Your task to perform on an android device: open app "AliExpress" Image 0: 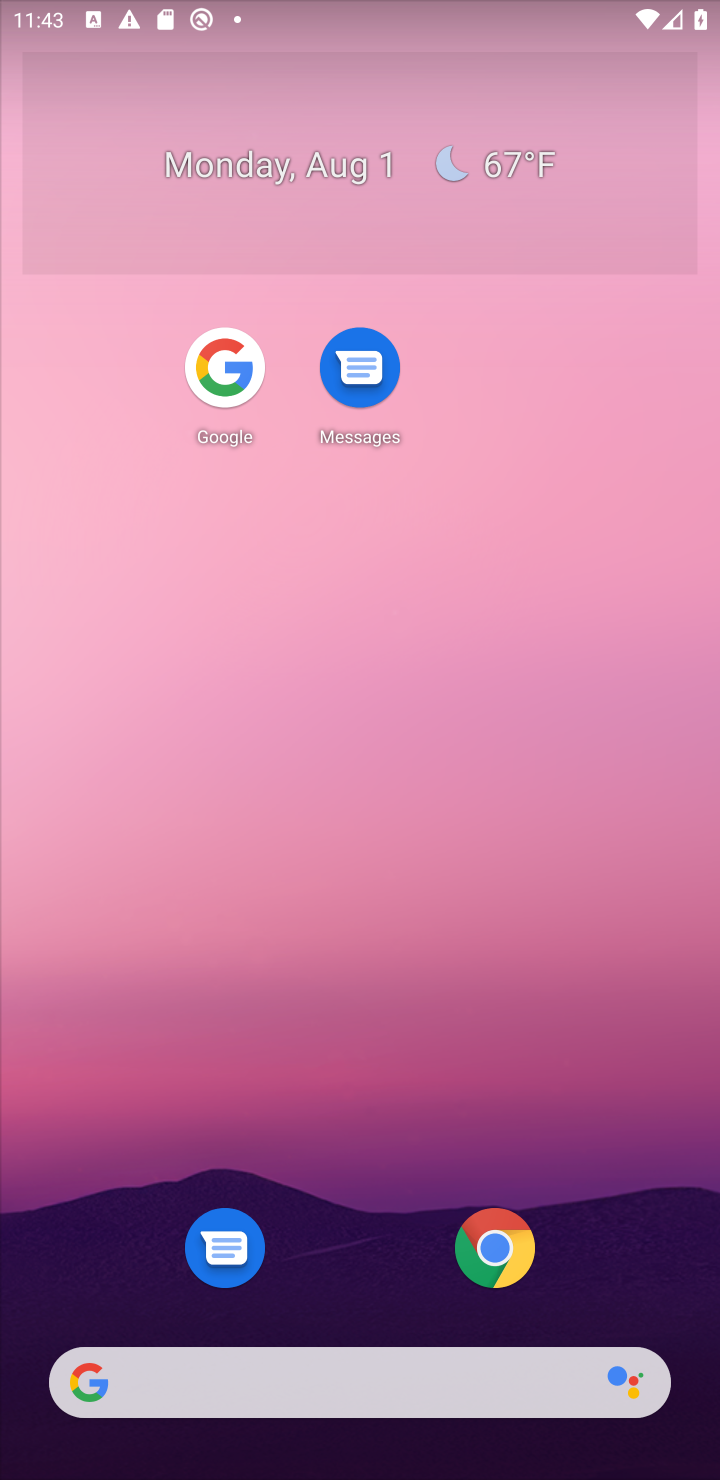
Step 0: drag from (388, 967) to (643, 145)
Your task to perform on an android device: open app "AliExpress" Image 1: 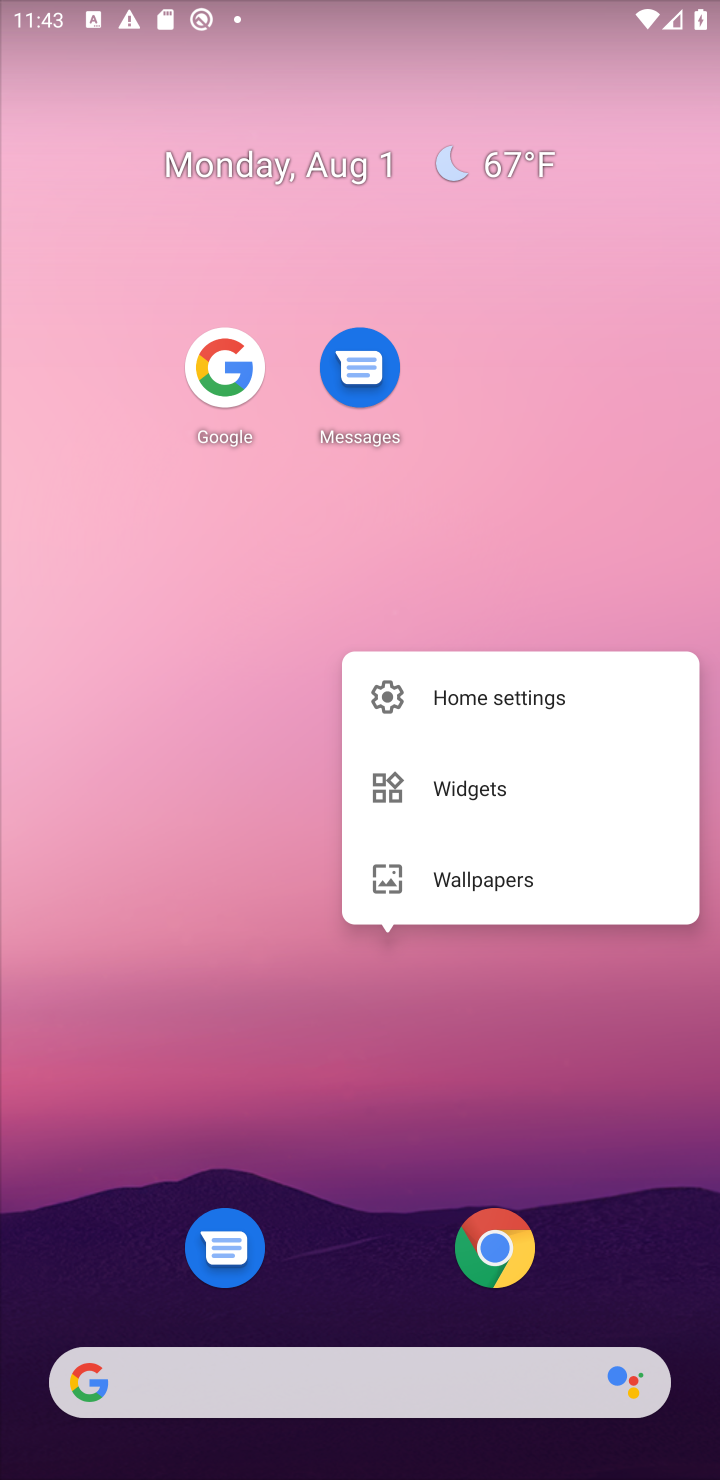
Step 1: click (575, 406)
Your task to perform on an android device: open app "AliExpress" Image 2: 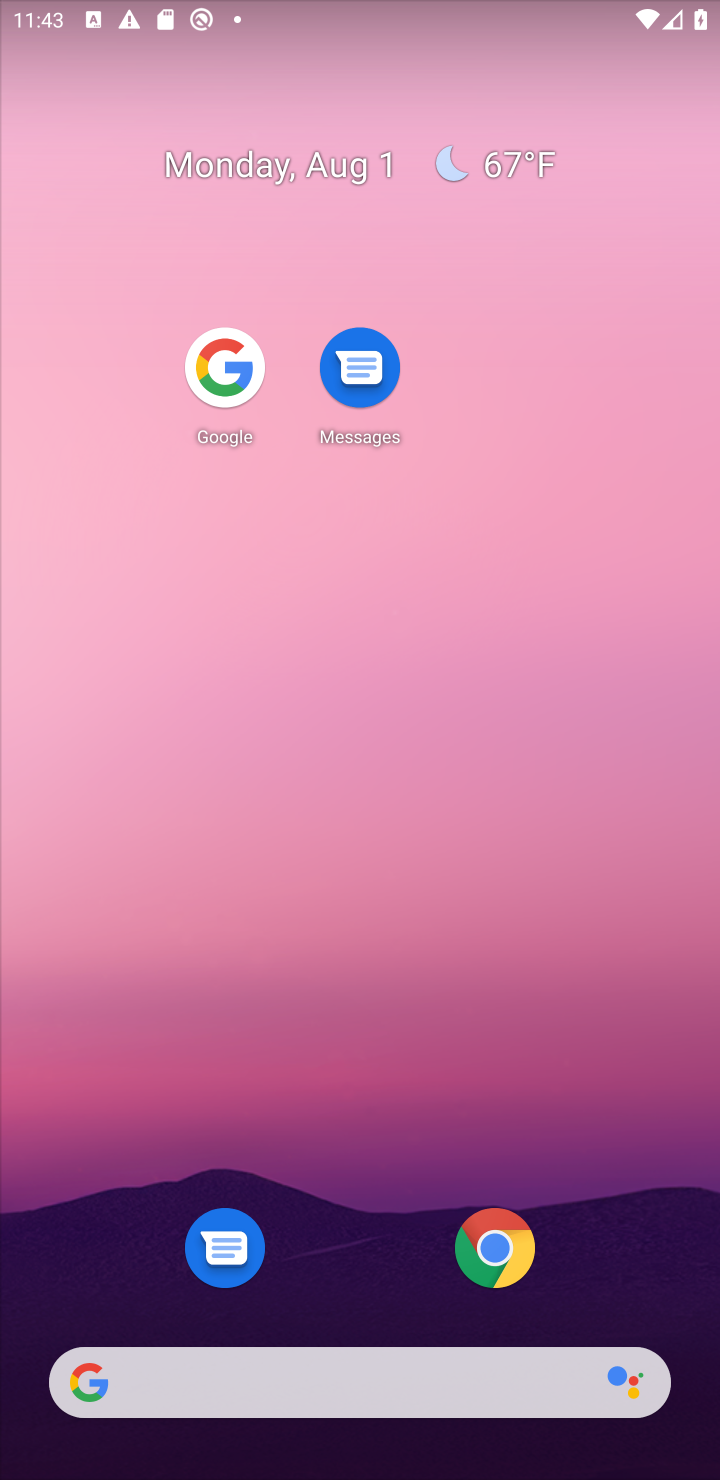
Step 2: drag from (393, 1150) to (493, 290)
Your task to perform on an android device: open app "AliExpress" Image 3: 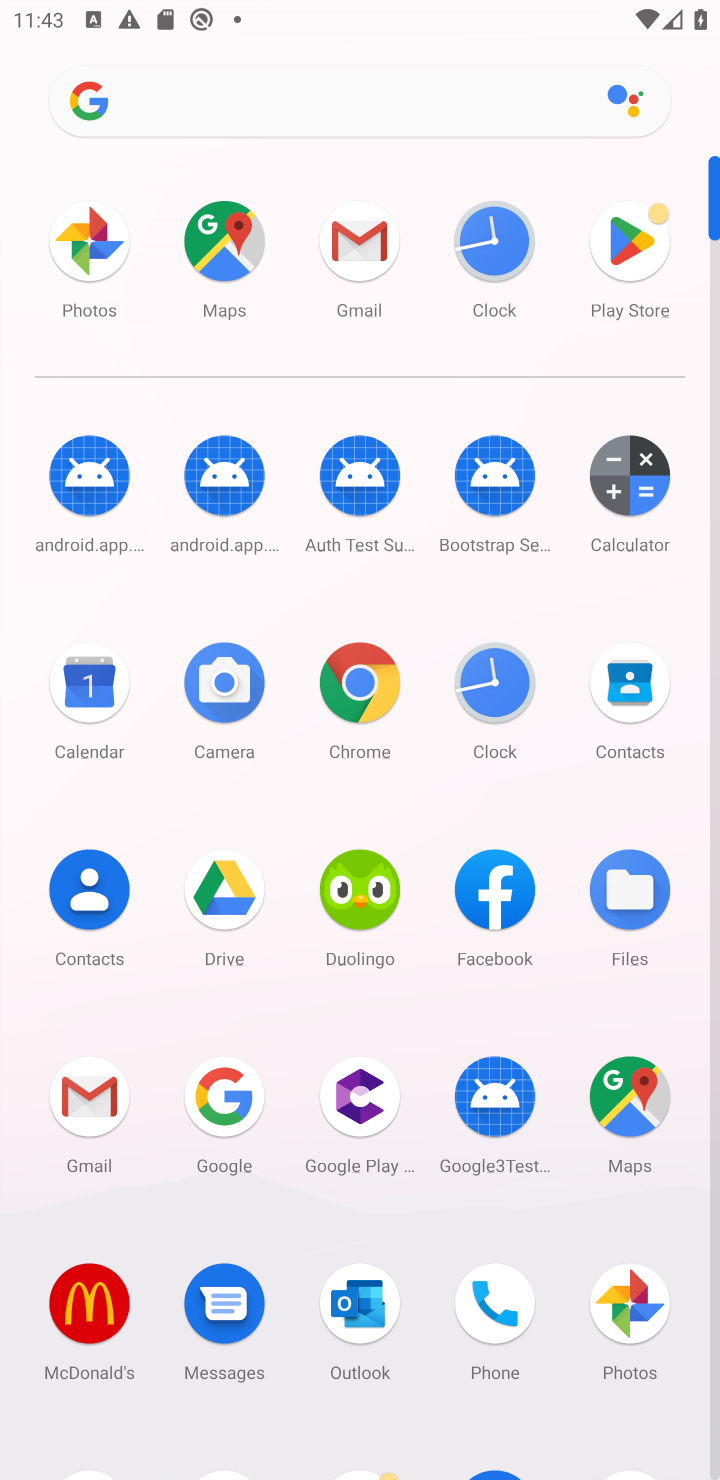
Step 3: drag from (418, 1202) to (482, 234)
Your task to perform on an android device: open app "AliExpress" Image 4: 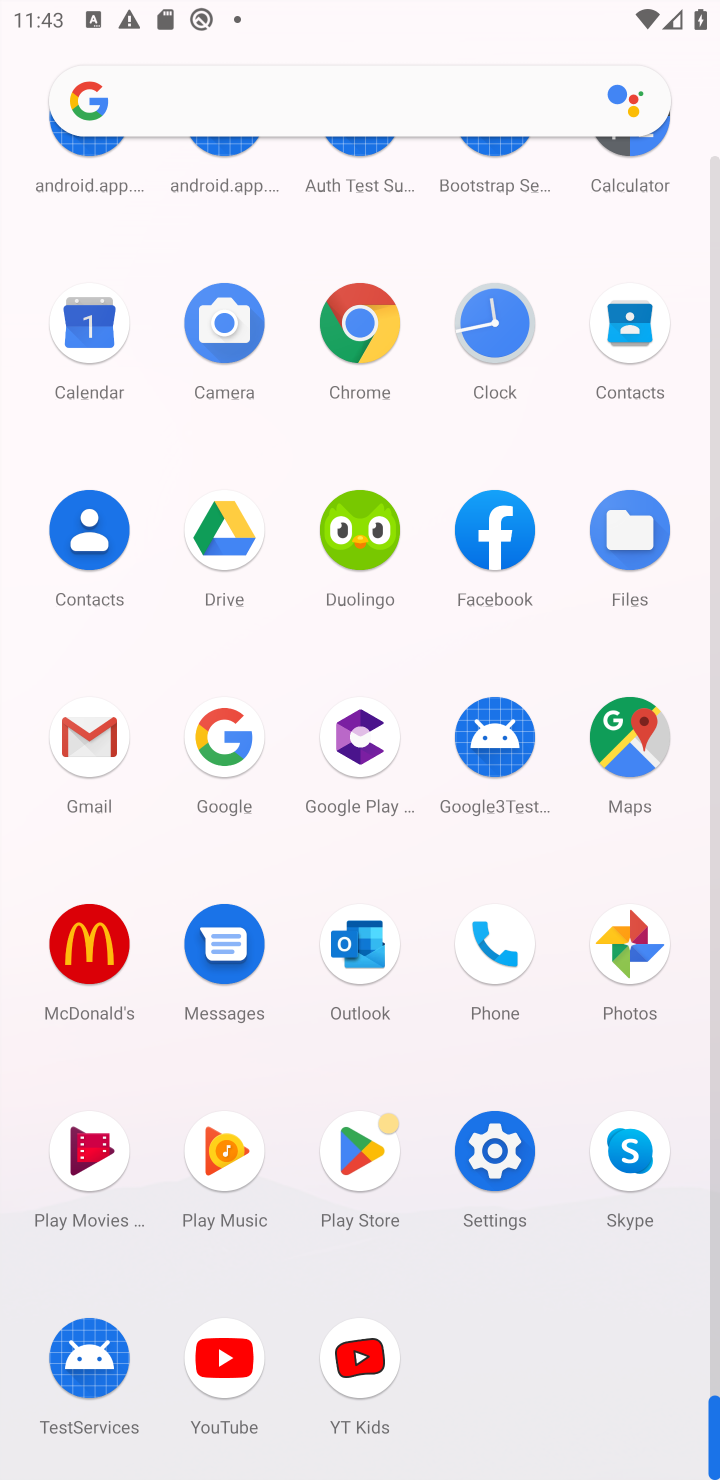
Step 4: click (340, 1146)
Your task to perform on an android device: open app "AliExpress" Image 5: 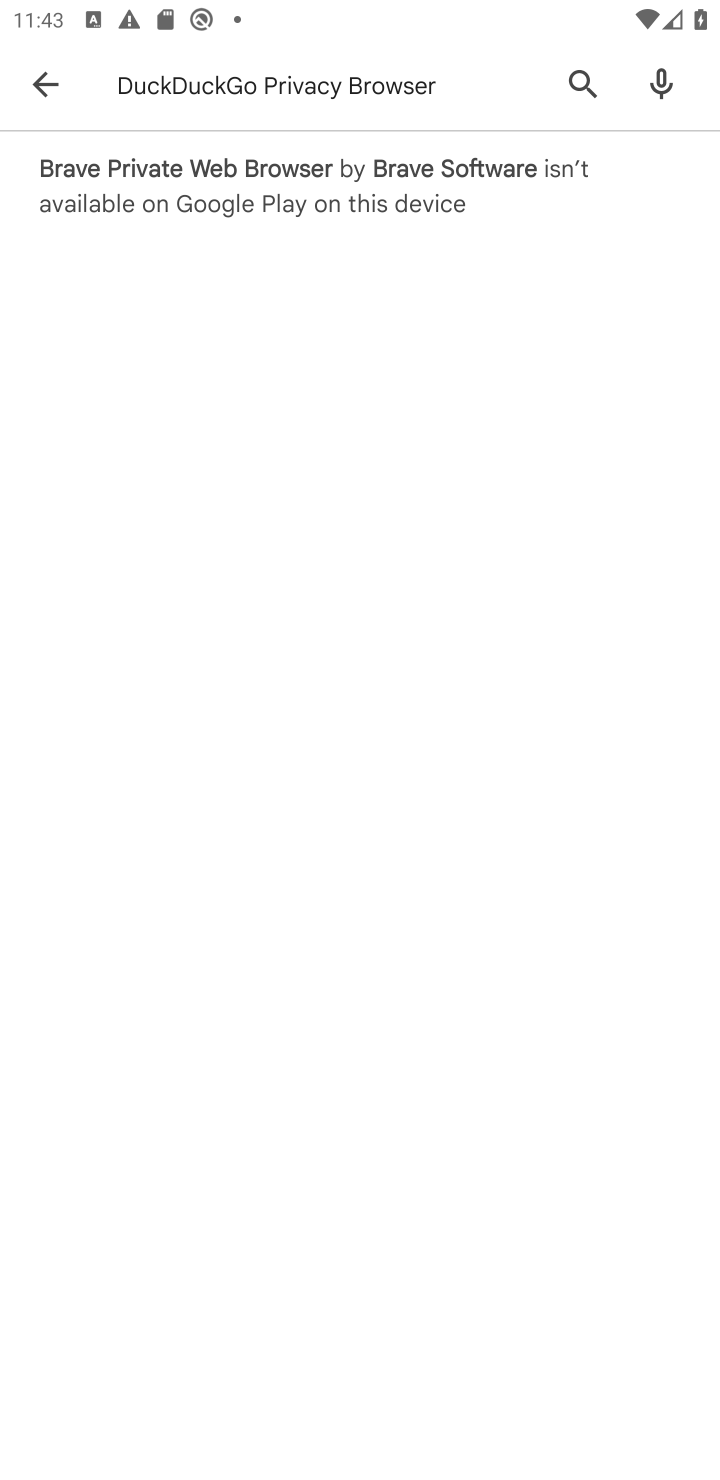
Step 5: click (489, 78)
Your task to perform on an android device: open app "AliExpress" Image 6: 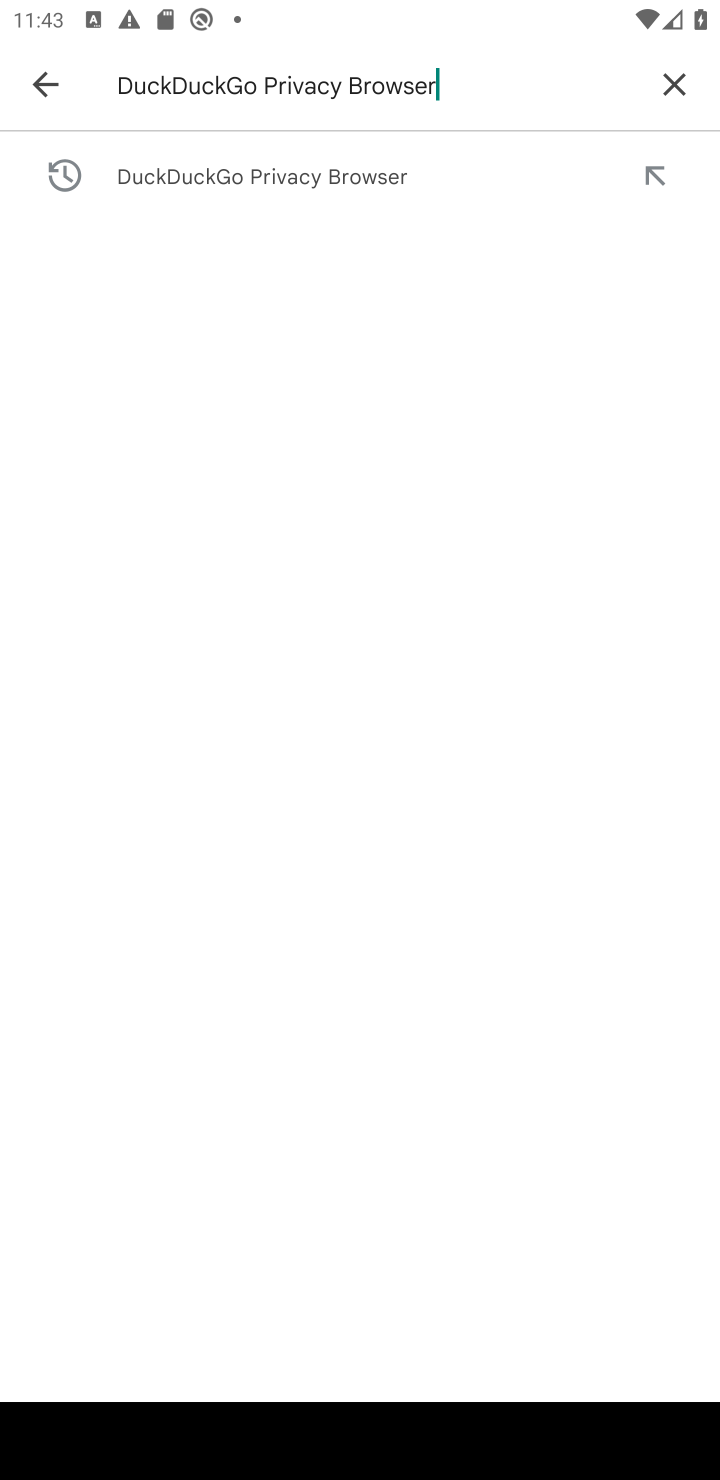
Step 6: click (679, 79)
Your task to perform on an android device: open app "AliExpress" Image 7: 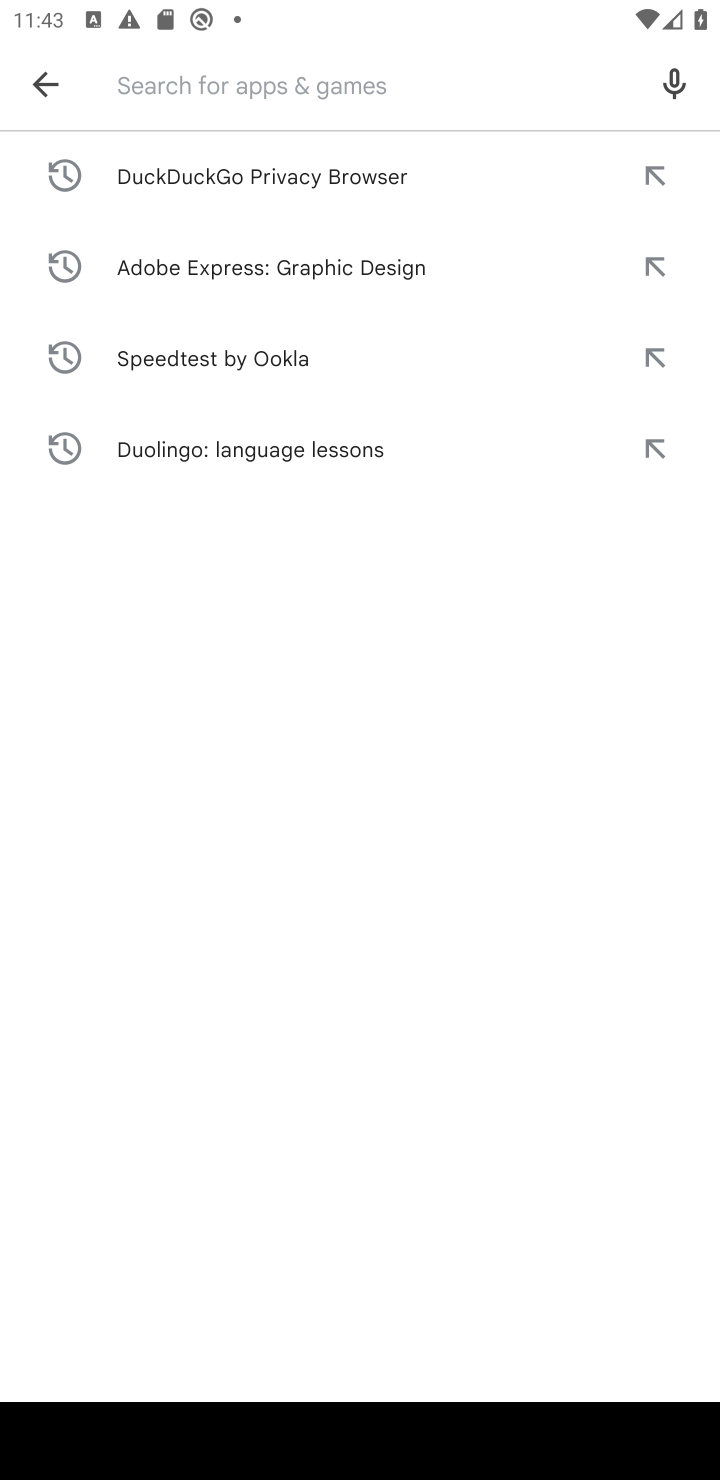
Step 7: type "AliExpress"
Your task to perform on an android device: open app "AliExpress" Image 8: 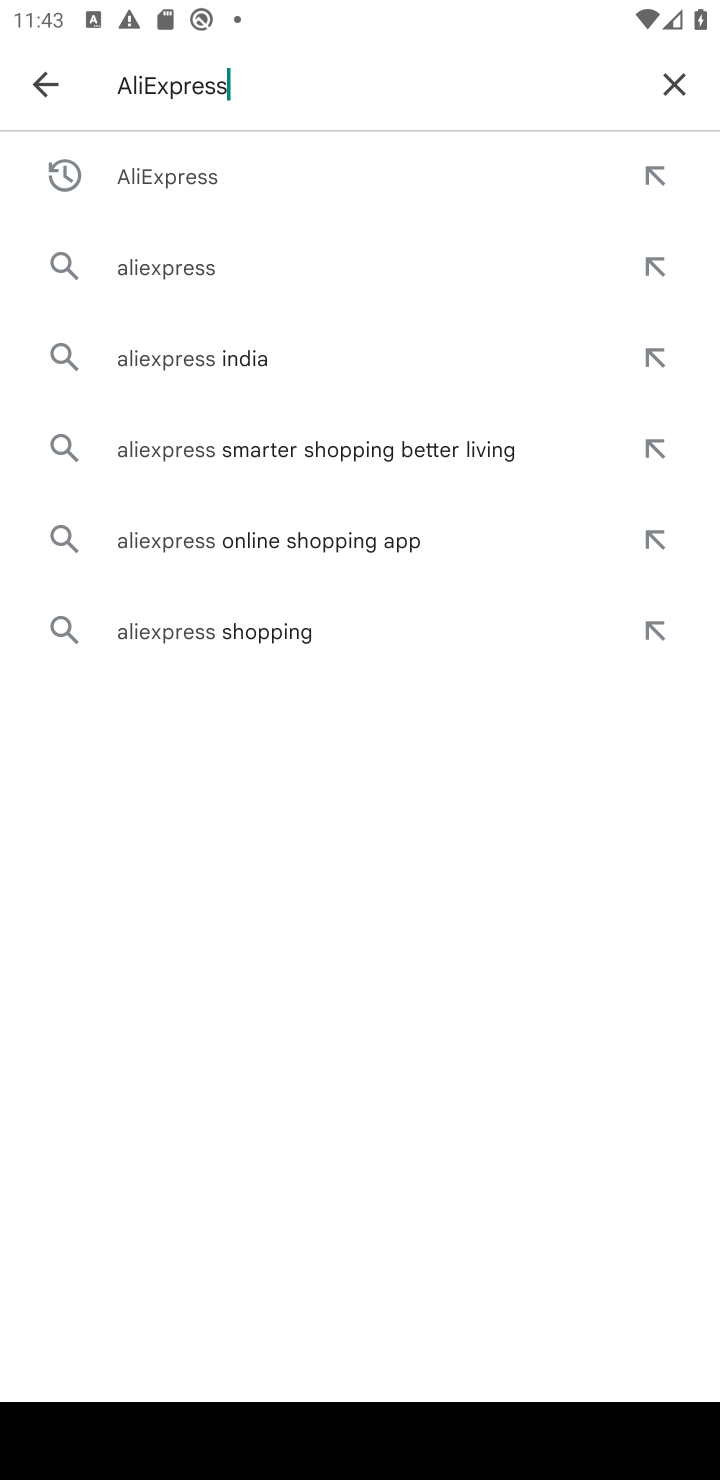
Step 8: press enter
Your task to perform on an android device: open app "AliExpress" Image 9: 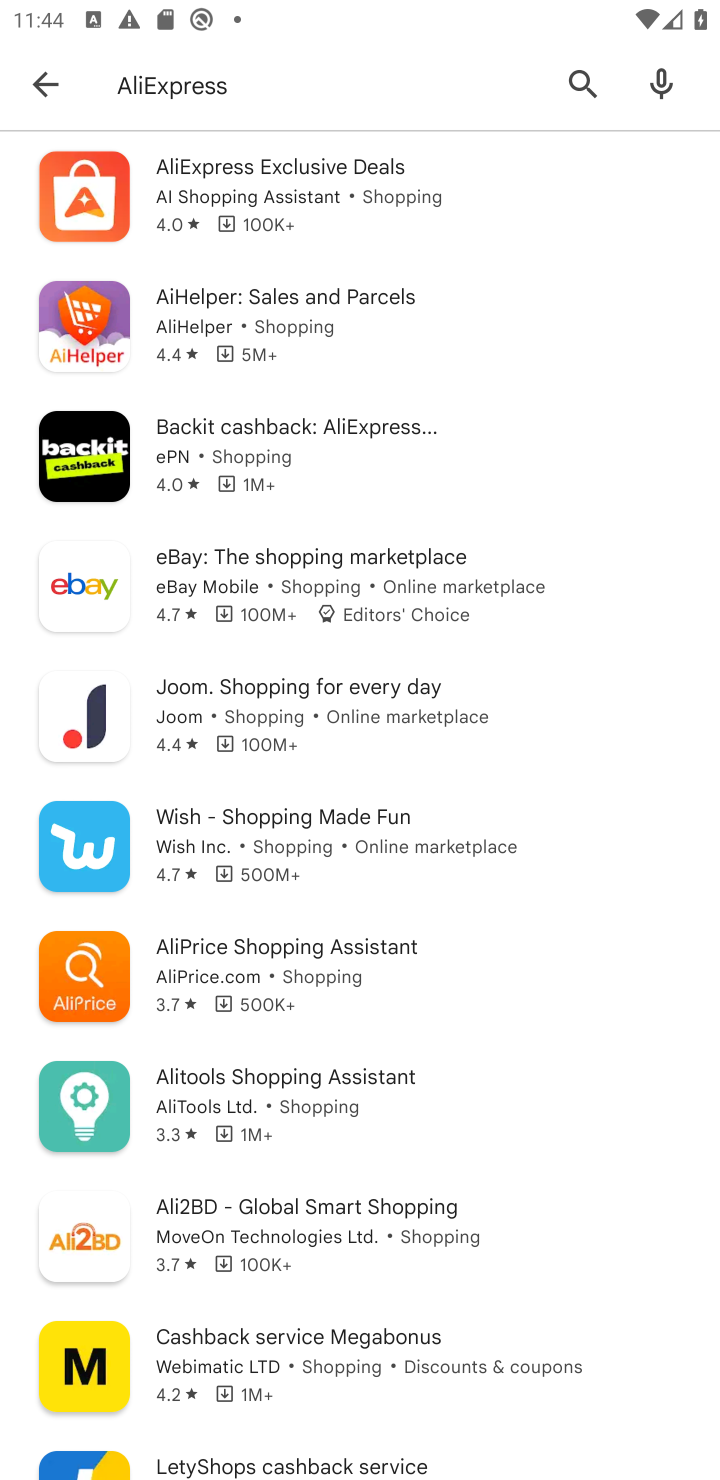
Step 9: task complete